Your task to perform on an android device: Open calendar and show me the second week of next month Image 0: 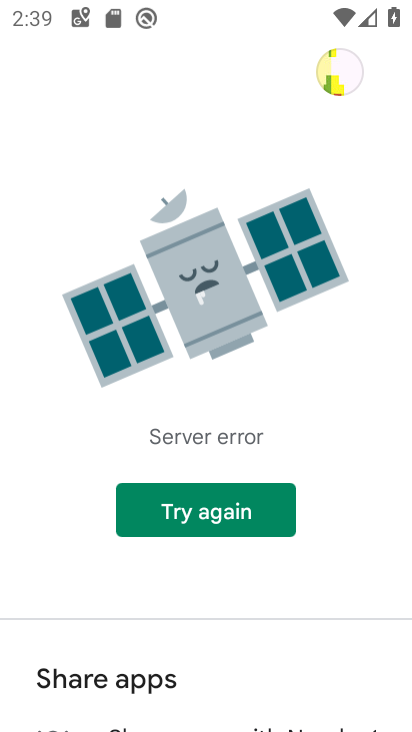
Step 0: press home button
Your task to perform on an android device: Open calendar and show me the second week of next month Image 1: 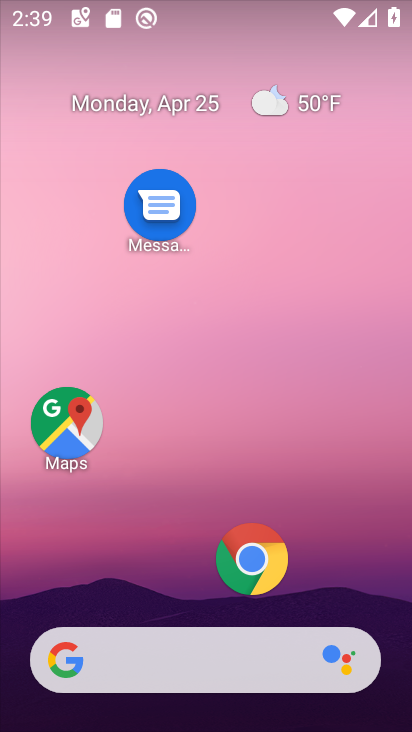
Step 1: drag from (164, 566) to (281, 32)
Your task to perform on an android device: Open calendar and show me the second week of next month Image 2: 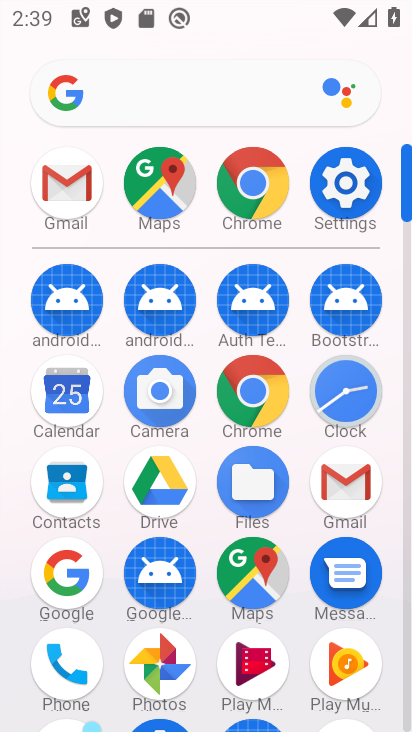
Step 2: click (66, 393)
Your task to perform on an android device: Open calendar and show me the second week of next month Image 3: 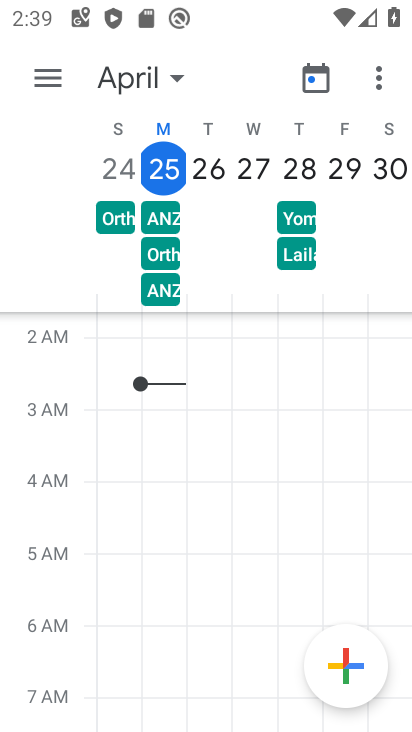
Step 3: task complete